Your task to perform on an android device: Go to internet settings Image 0: 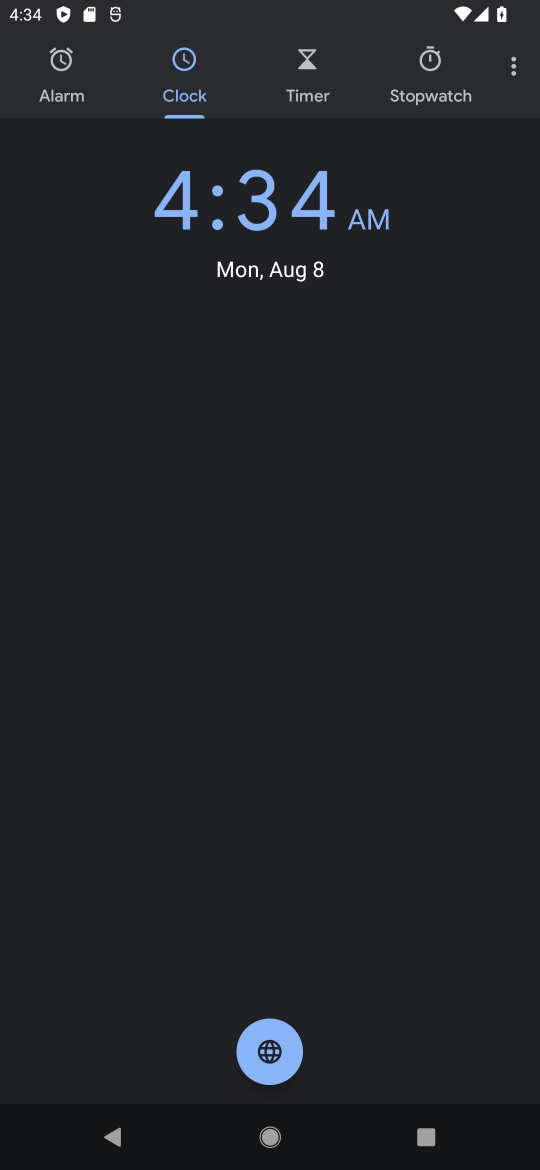
Step 0: press home button
Your task to perform on an android device: Go to internet settings Image 1: 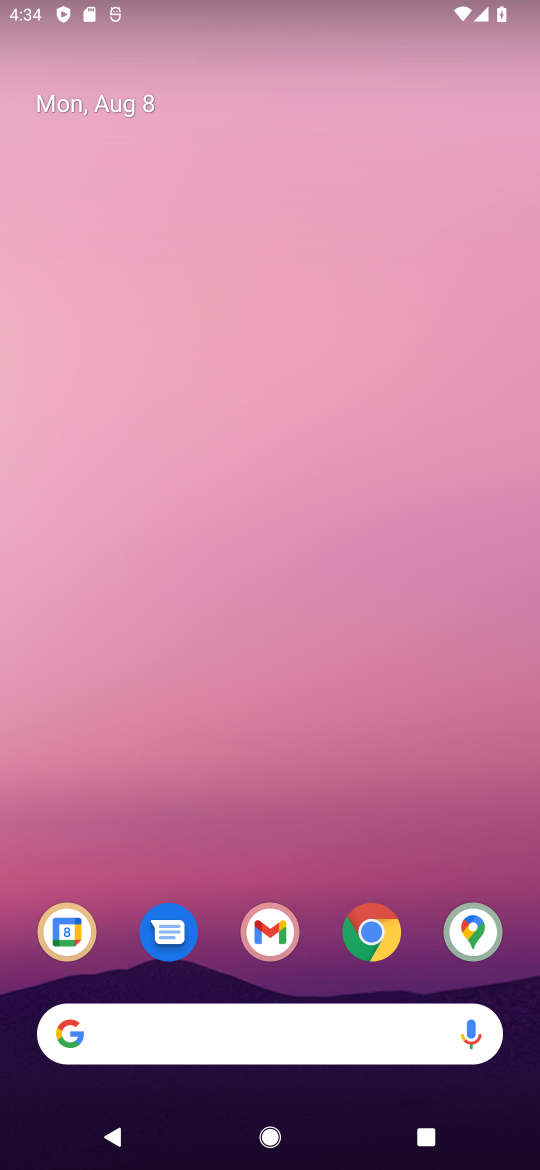
Step 1: drag from (51, 1123) to (489, 258)
Your task to perform on an android device: Go to internet settings Image 2: 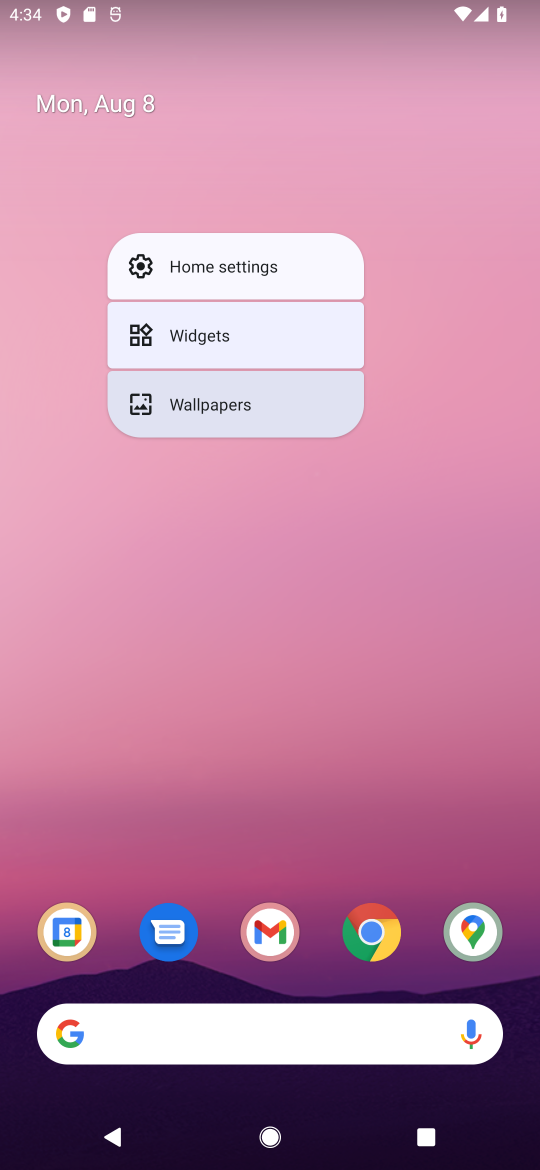
Step 2: drag from (74, 919) to (393, 392)
Your task to perform on an android device: Go to internet settings Image 3: 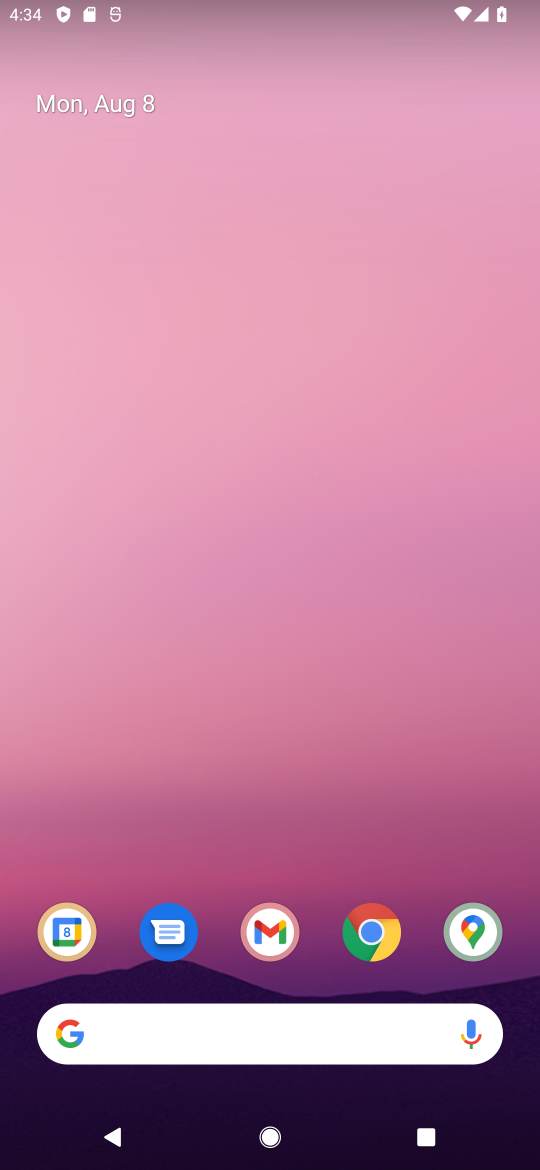
Step 3: drag from (22, 1127) to (341, 375)
Your task to perform on an android device: Go to internet settings Image 4: 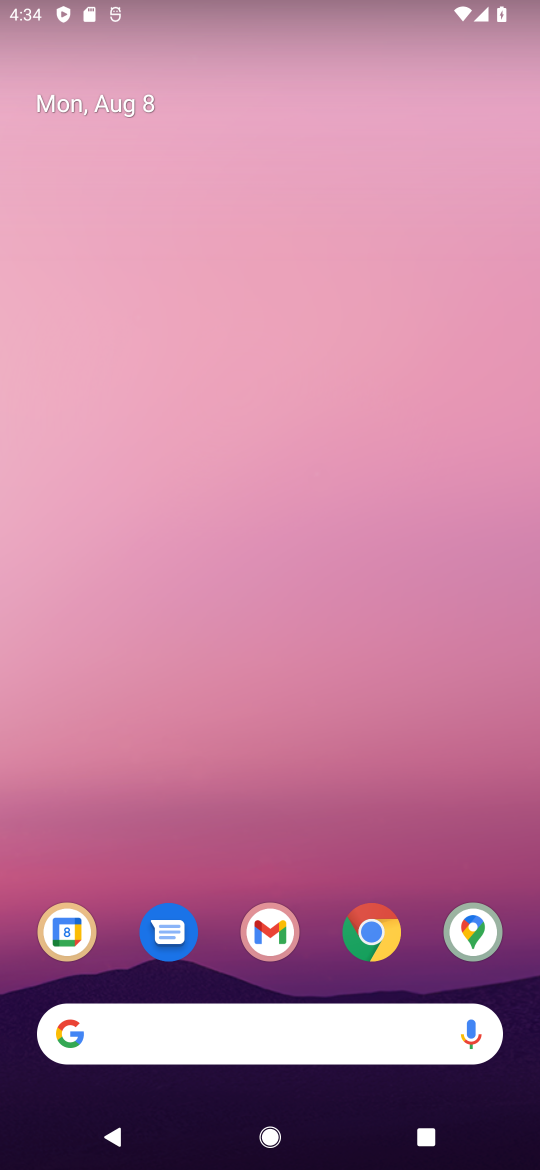
Step 4: drag from (439, 1000) to (220, 608)
Your task to perform on an android device: Go to internet settings Image 5: 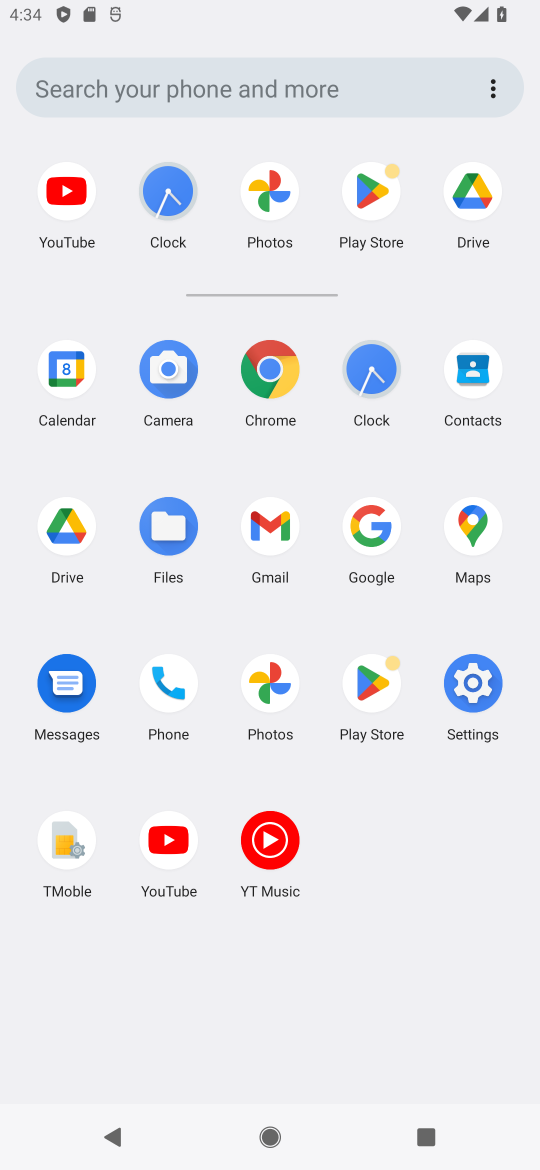
Step 5: click (473, 690)
Your task to perform on an android device: Go to internet settings Image 6: 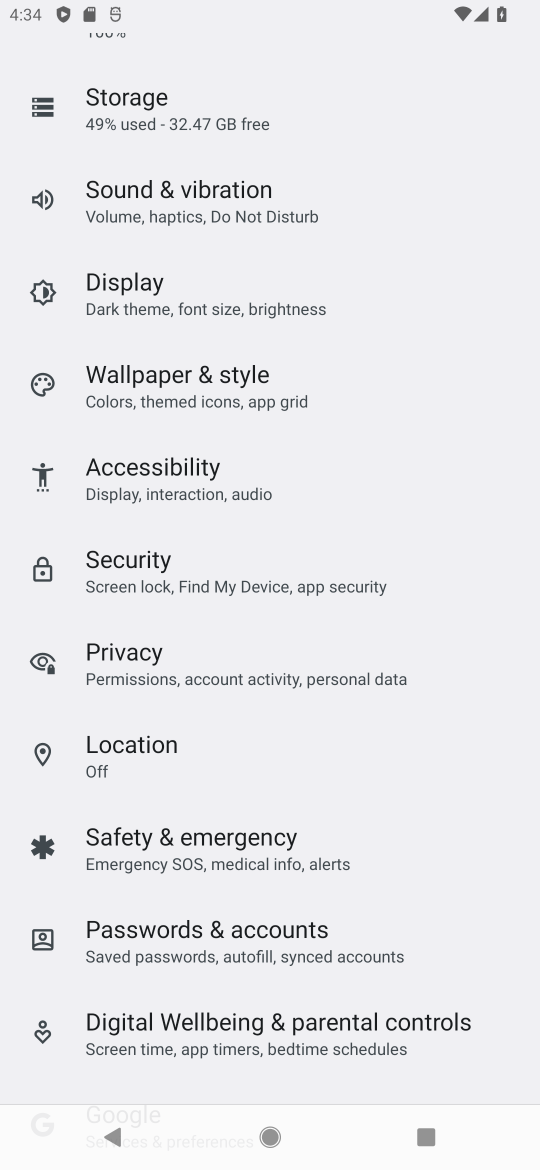
Step 6: drag from (382, 172) to (418, 1167)
Your task to perform on an android device: Go to internet settings Image 7: 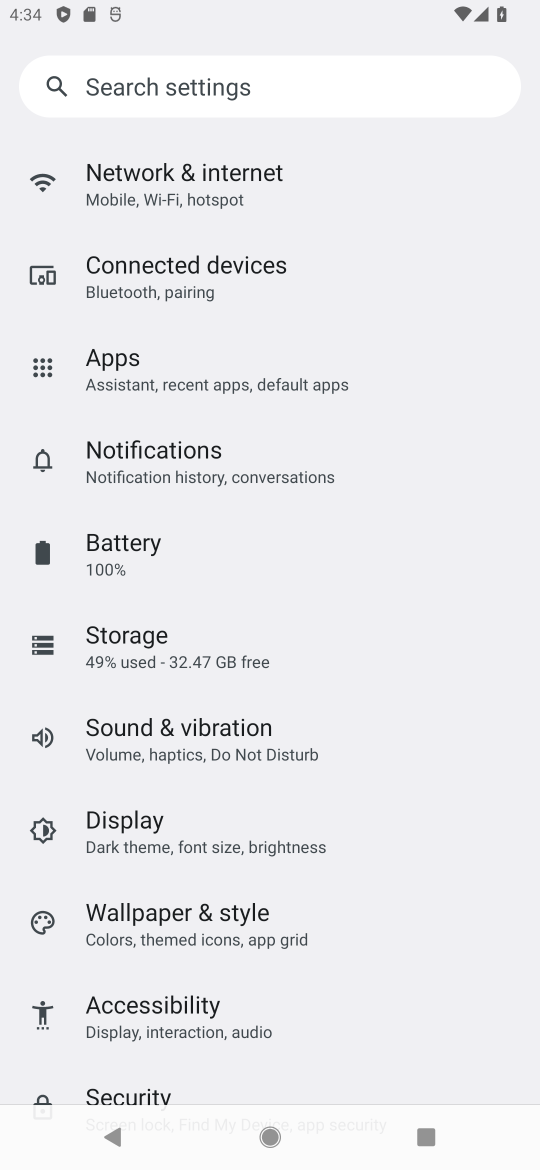
Step 7: click (237, 184)
Your task to perform on an android device: Go to internet settings Image 8: 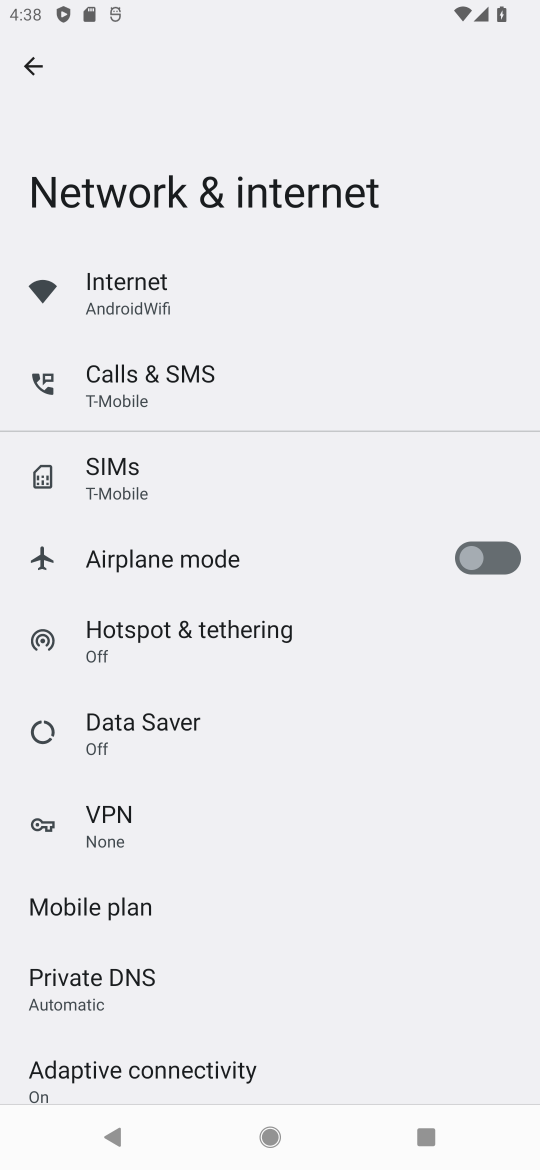
Step 8: task complete